Your task to perform on an android device: turn off airplane mode Image 0: 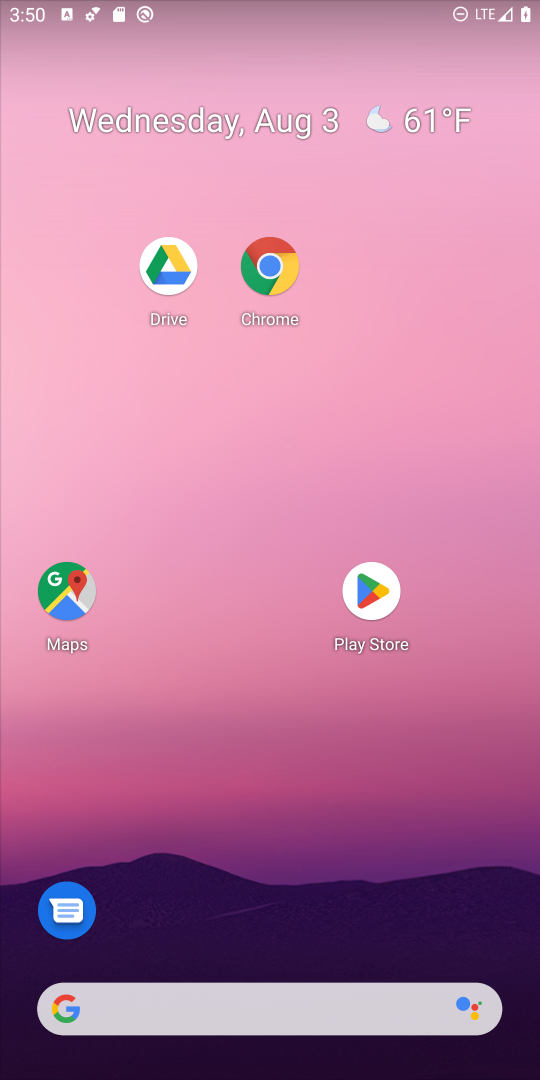
Step 0: drag from (346, 804) to (431, 320)
Your task to perform on an android device: turn off airplane mode Image 1: 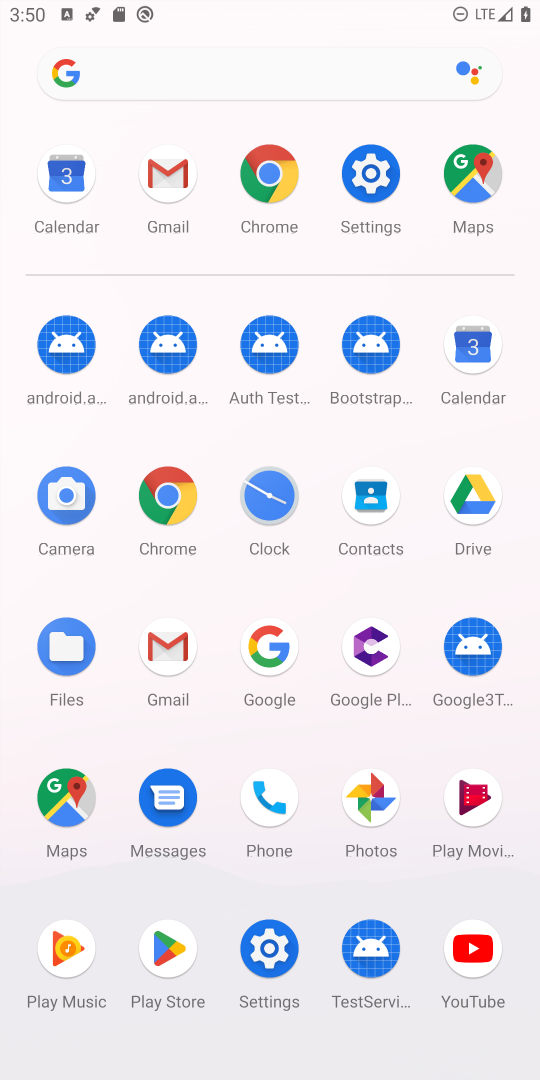
Step 1: click (384, 168)
Your task to perform on an android device: turn off airplane mode Image 2: 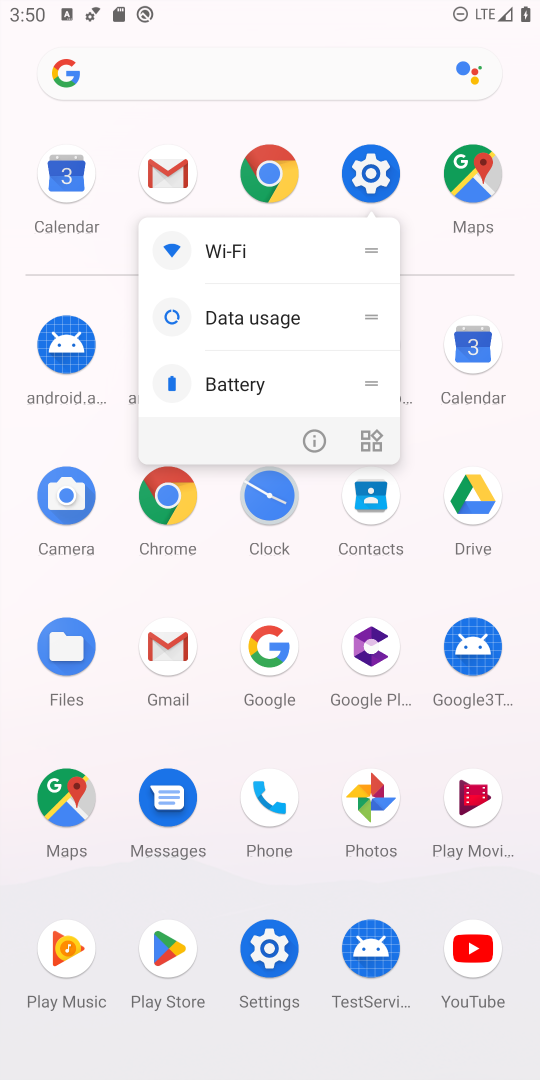
Step 2: click (348, 177)
Your task to perform on an android device: turn off airplane mode Image 3: 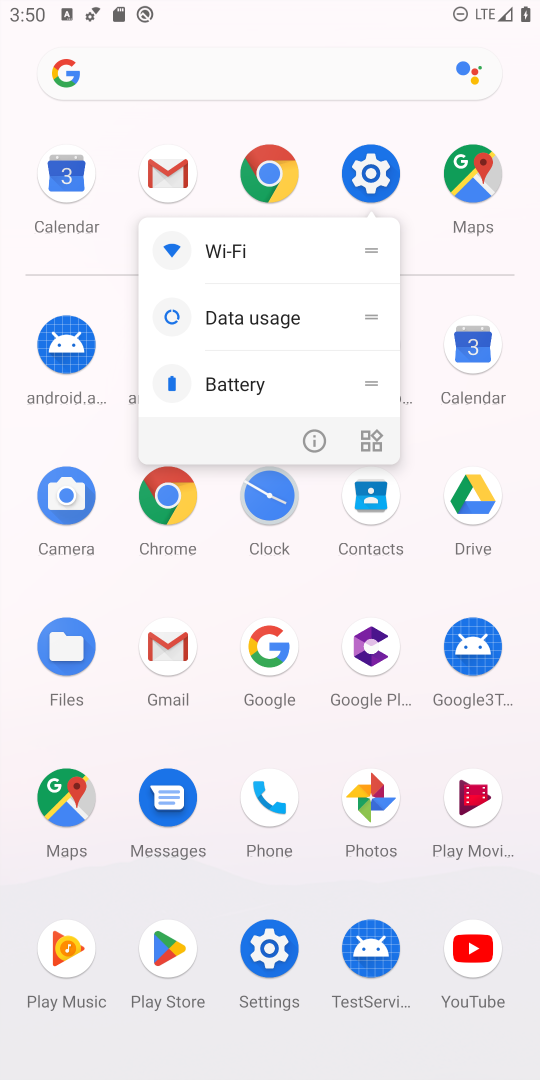
Step 3: click (351, 172)
Your task to perform on an android device: turn off airplane mode Image 4: 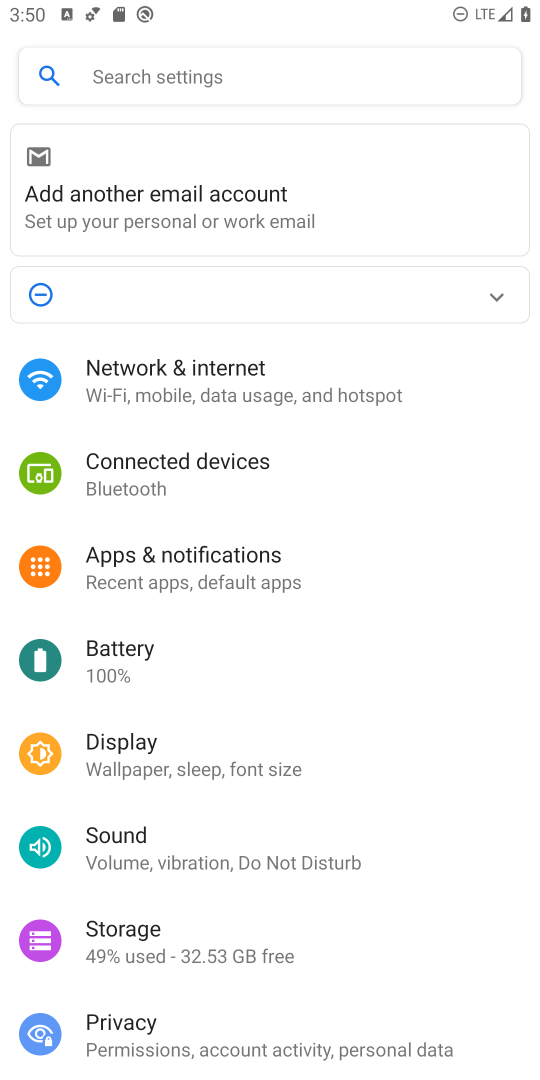
Step 4: click (255, 384)
Your task to perform on an android device: turn off airplane mode Image 5: 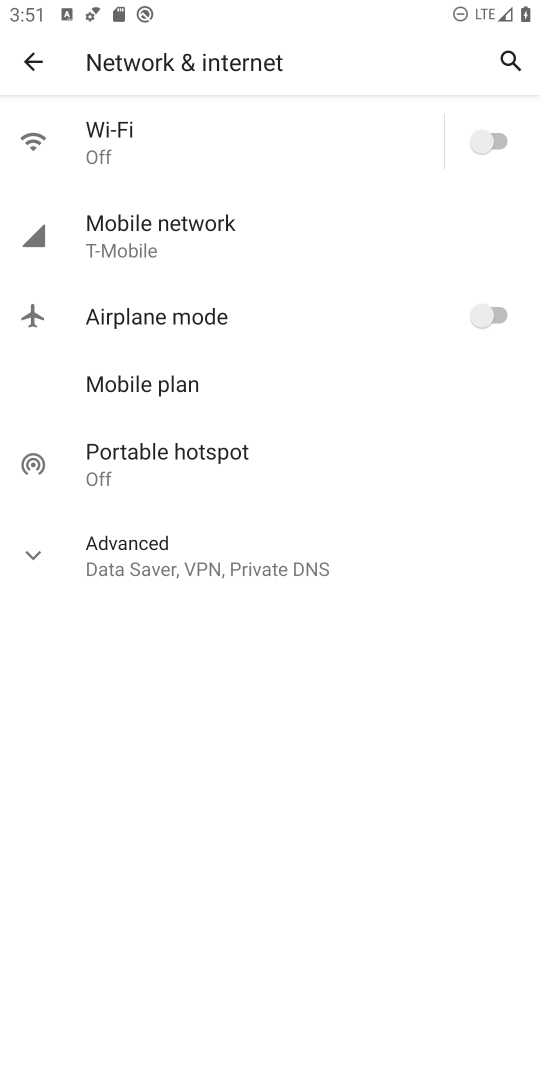
Step 5: task complete